Your task to perform on an android device: turn off location history Image 0: 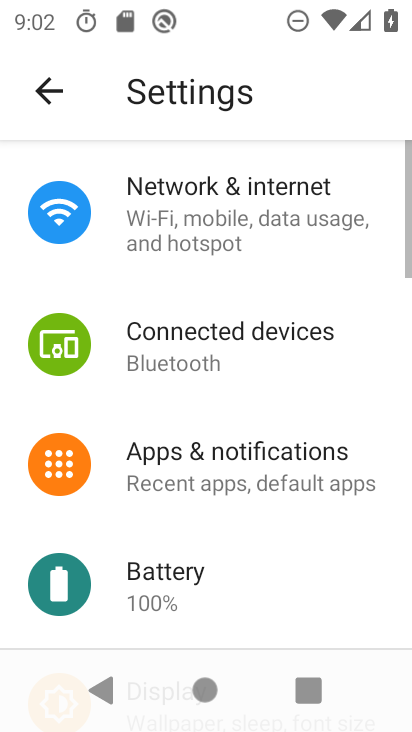
Step 0: drag from (200, 581) to (187, 194)
Your task to perform on an android device: turn off location history Image 1: 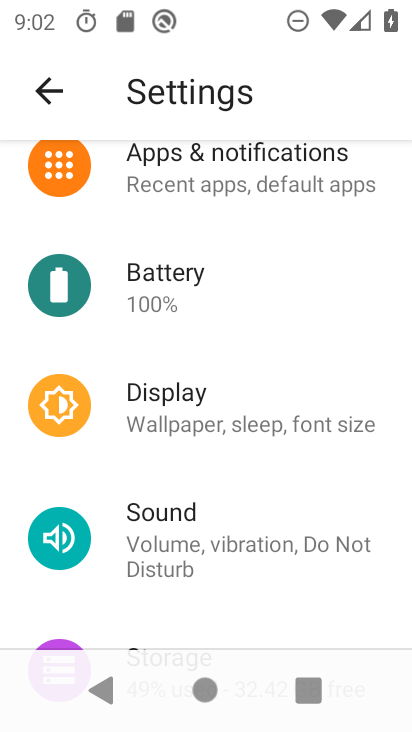
Step 1: drag from (215, 547) to (223, 228)
Your task to perform on an android device: turn off location history Image 2: 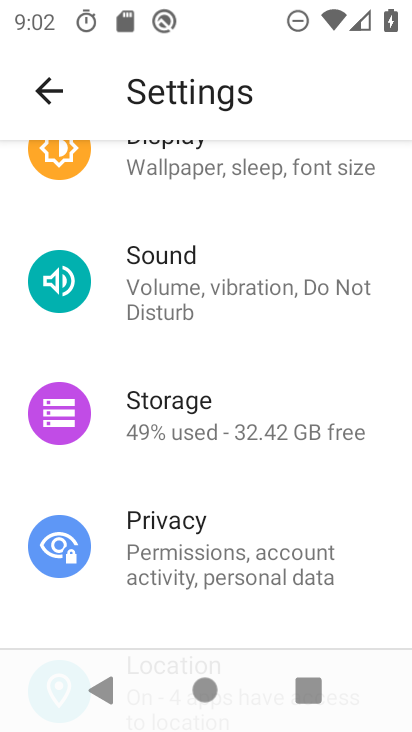
Step 2: drag from (166, 597) to (196, 270)
Your task to perform on an android device: turn off location history Image 3: 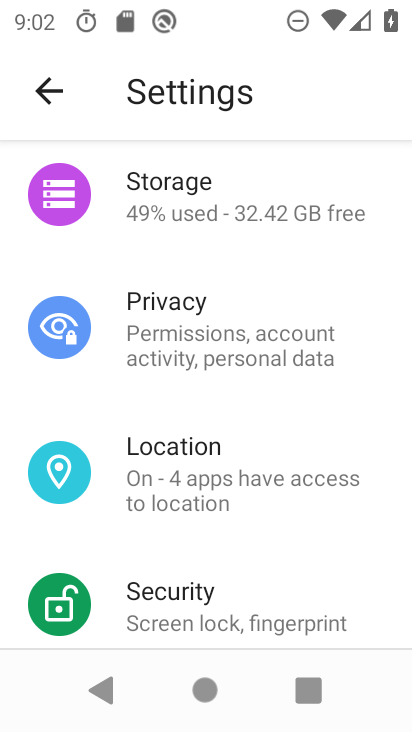
Step 3: click (158, 488)
Your task to perform on an android device: turn off location history Image 4: 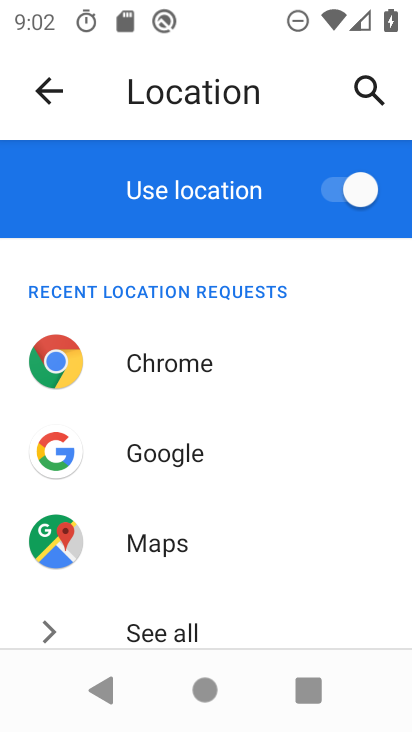
Step 4: drag from (220, 612) to (203, 235)
Your task to perform on an android device: turn off location history Image 5: 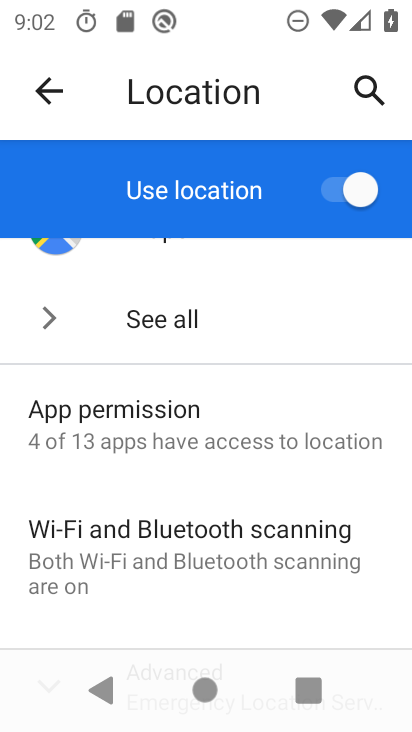
Step 5: drag from (154, 565) to (173, 392)
Your task to perform on an android device: turn off location history Image 6: 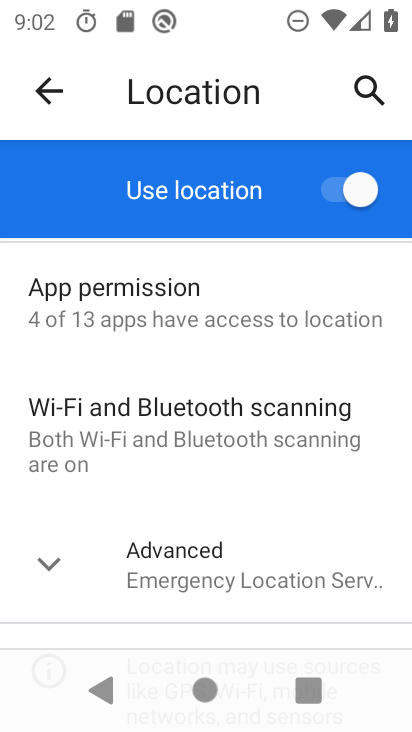
Step 6: click (217, 571)
Your task to perform on an android device: turn off location history Image 7: 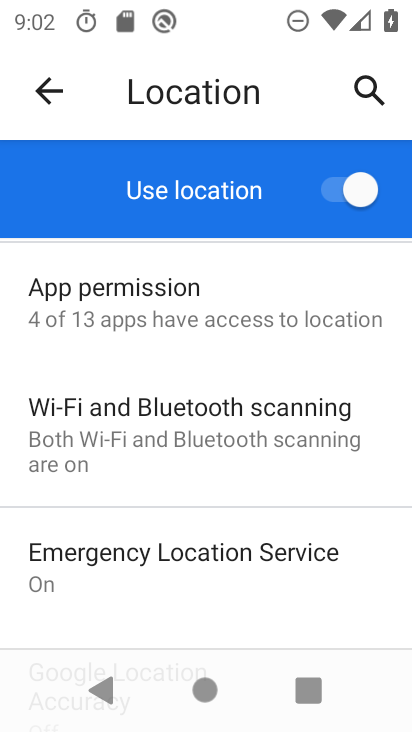
Step 7: drag from (161, 625) to (153, 255)
Your task to perform on an android device: turn off location history Image 8: 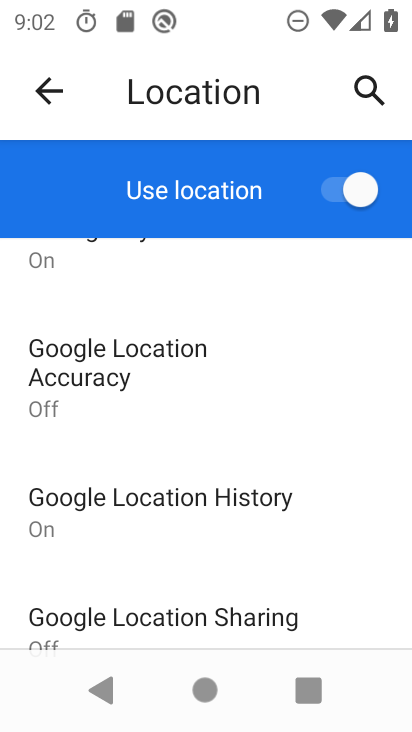
Step 8: click (127, 505)
Your task to perform on an android device: turn off location history Image 9: 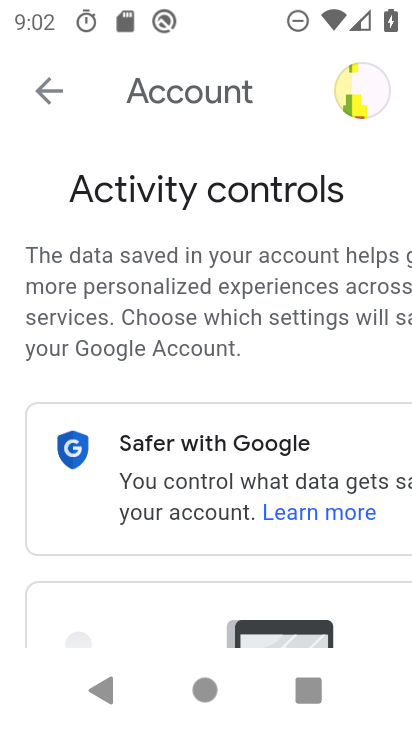
Step 9: drag from (115, 629) to (124, 267)
Your task to perform on an android device: turn off location history Image 10: 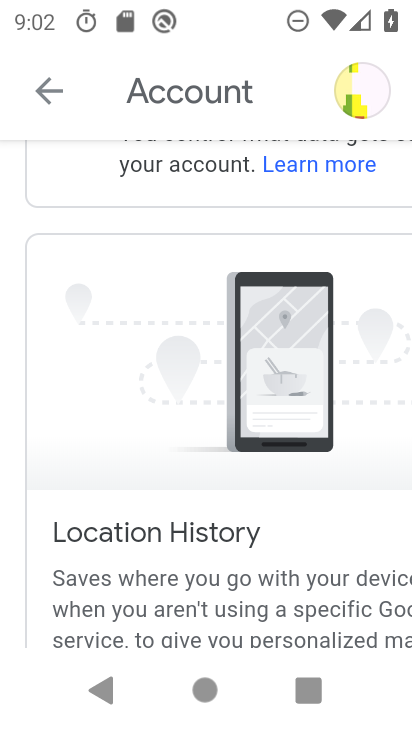
Step 10: drag from (192, 493) to (193, 177)
Your task to perform on an android device: turn off location history Image 11: 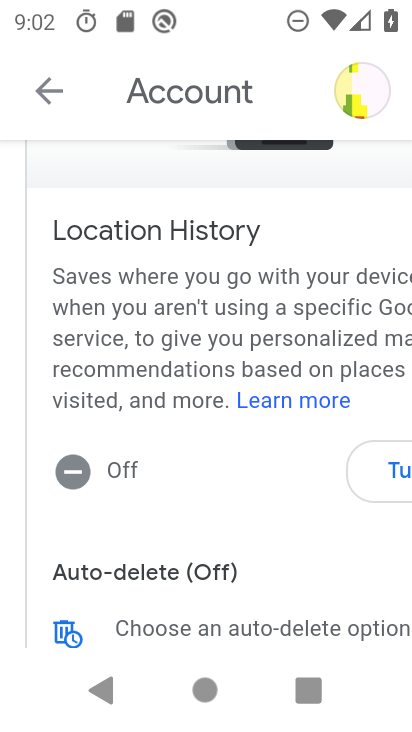
Step 11: click (76, 474)
Your task to perform on an android device: turn off location history Image 12: 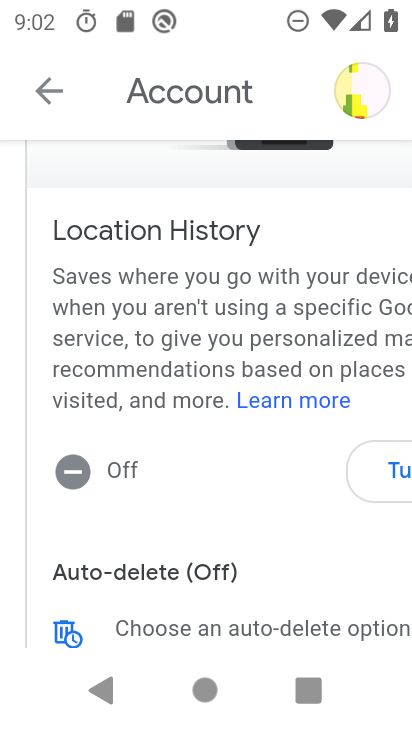
Step 12: press back button
Your task to perform on an android device: turn off location history Image 13: 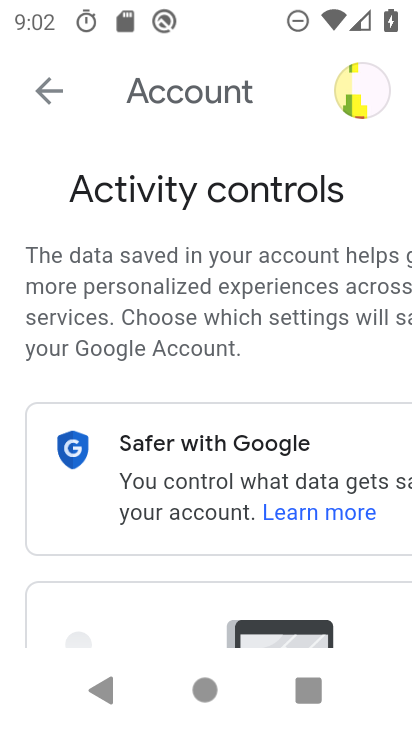
Step 13: press back button
Your task to perform on an android device: turn off location history Image 14: 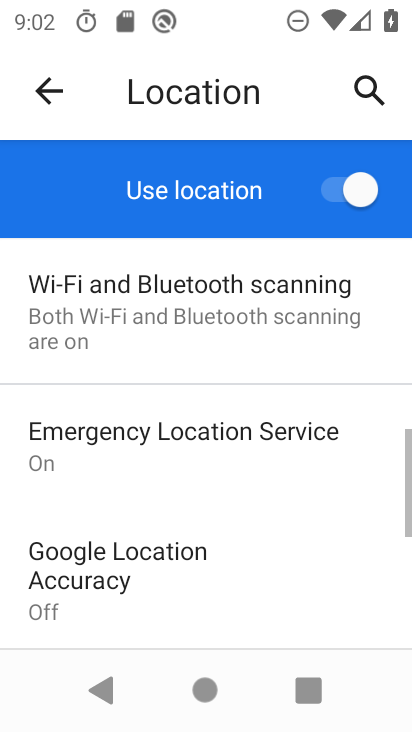
Step 14: drag from (163, 554) to (172, 256)
Your task to perform on an android device: turn off location history Image 15: 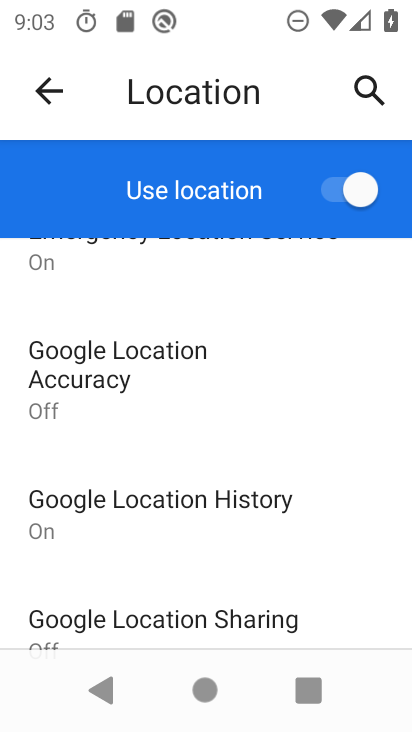
Step 15: drag from (141, 598) to (154, 482)
Your task to perform on an android device: turn off location history Image 16: 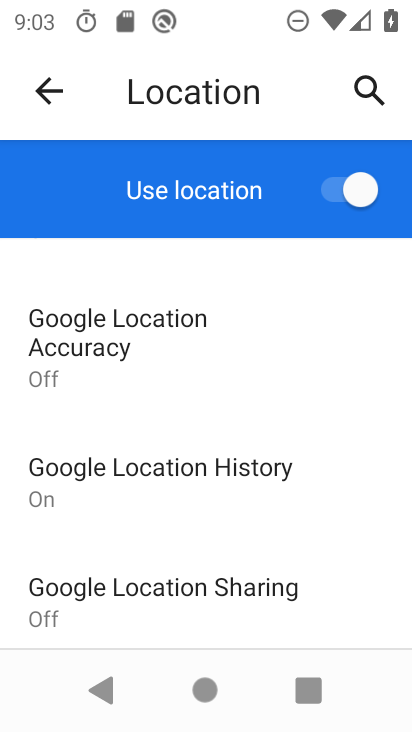
Step 16: click (144, 465)
Your task to perform on an android device: turn off location history Image 17: 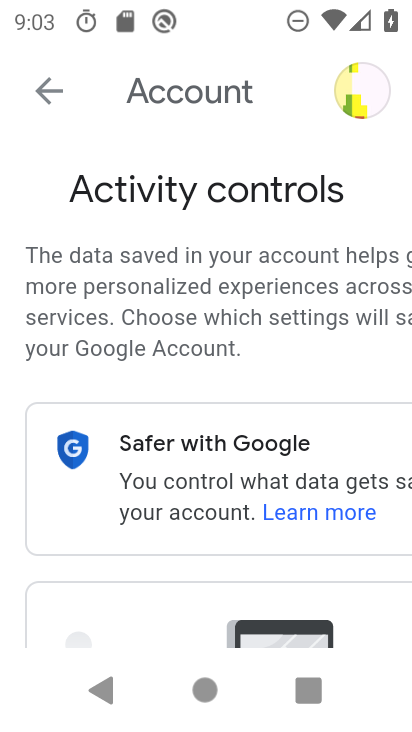
Step 17: drag from (158, 615) to (175, 148)
Your task to perform on an android device: turn off location history Image 18: 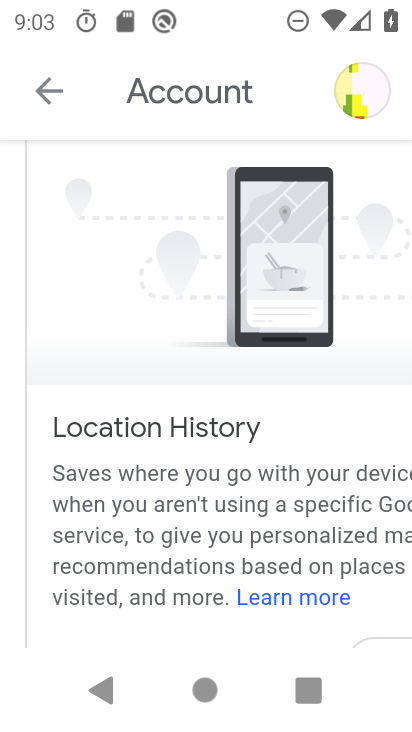
Step 18: drag from (143, 585) to (150, 304)
Your task to perform on an android device: turn off location history Image 19: 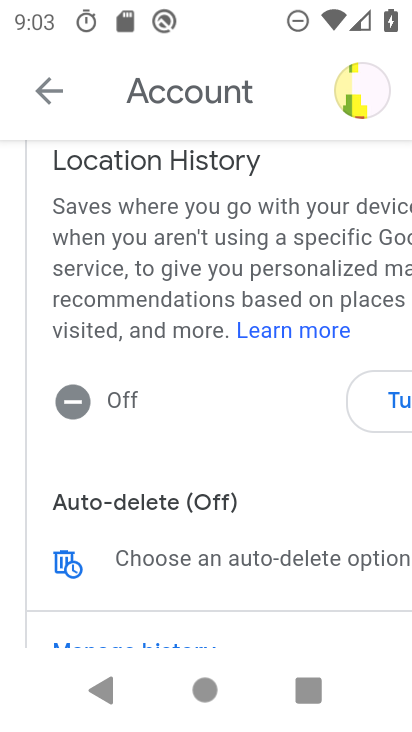
Step 19: click (93, 402)
Your task to perform on an android device: turn off location history Image 20: 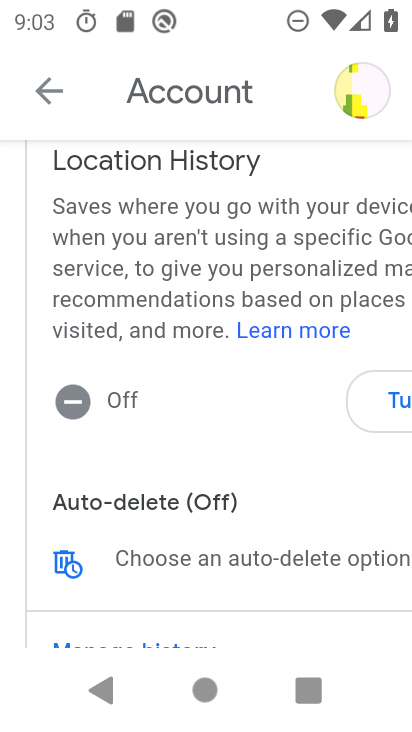
Step 20: click (74, 404)
Your task to perform on an android device: turn off location history Image 21: 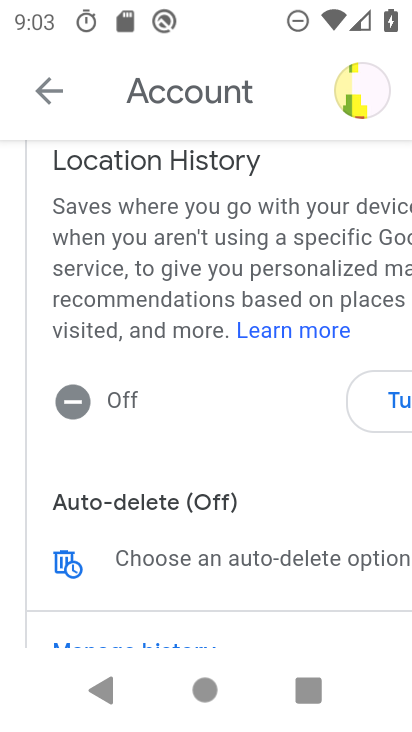
Step 21: click (74, 404)
Your task to perform on an android device: turn off location history Image 22: 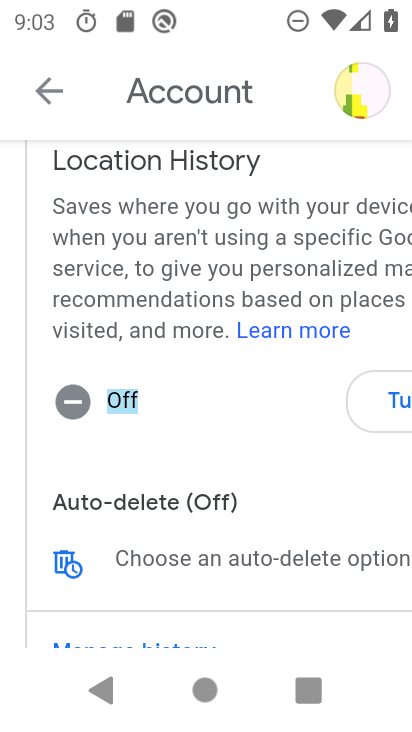
Step 22: click (74, 404)
Your task to perform on an android device: turn off location history Image 23: 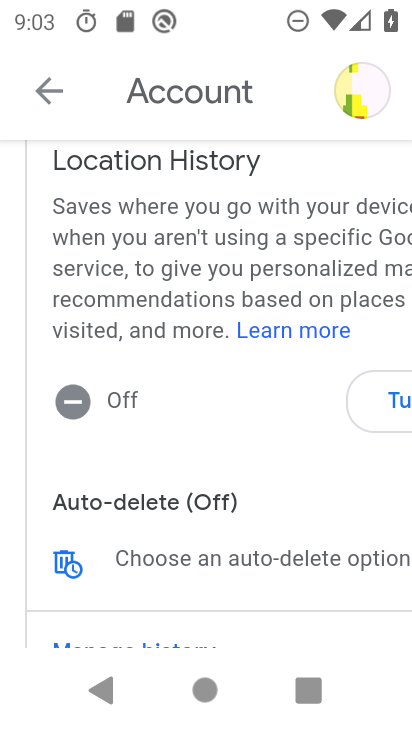
Step 23: click (128, 401)
Your task to perform on an android device: turn off location history Image 24: 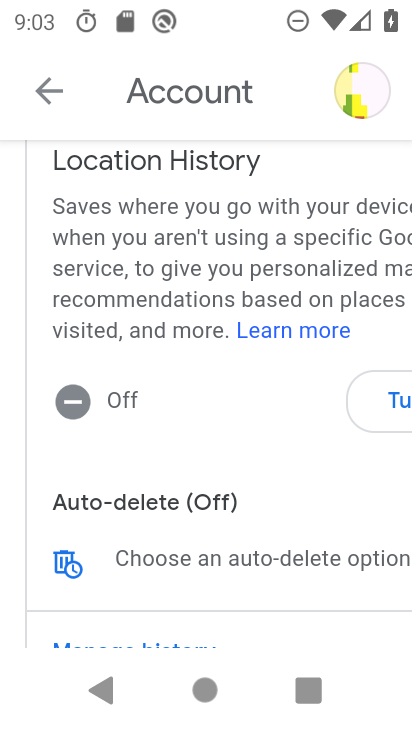
Step 24: click (390, 403)
Your task to perform on an android device: turn off location history Image 25: 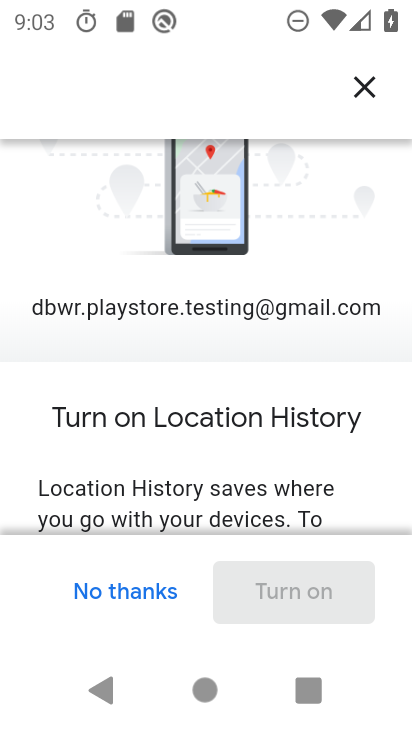
Step 25: drag from (177, 481) to (203, 110)
Your task to perform on an android device: turn off location history Image 26: 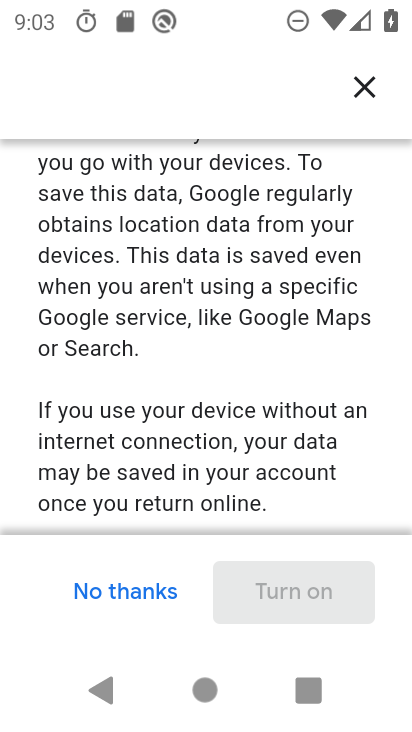
Step 26: drag from (201, 470) to (213, 185)
Your task to perform on an android device: turn off location history Image 27: 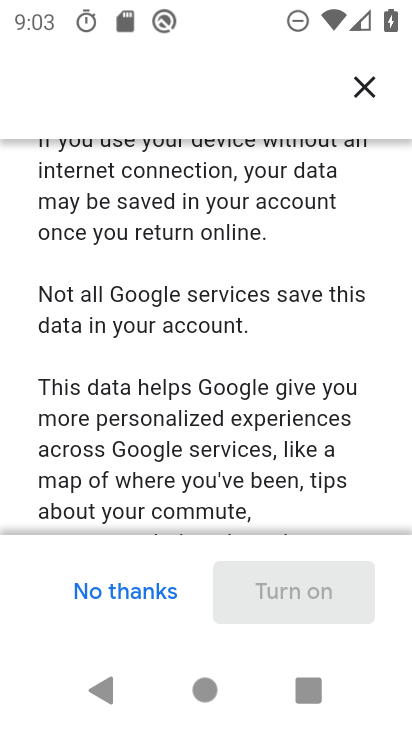
Step 27: drag from (188, 501) to (197, 207)
Your task to perform on an android device: turn off location history Image 28: 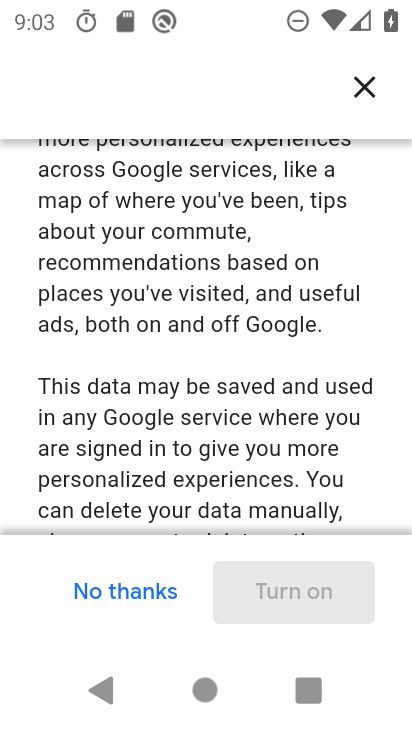
Step 28: drag from (219, 503) to (223, 261)
Your task to perform on an android device: turn off location history Image 29: 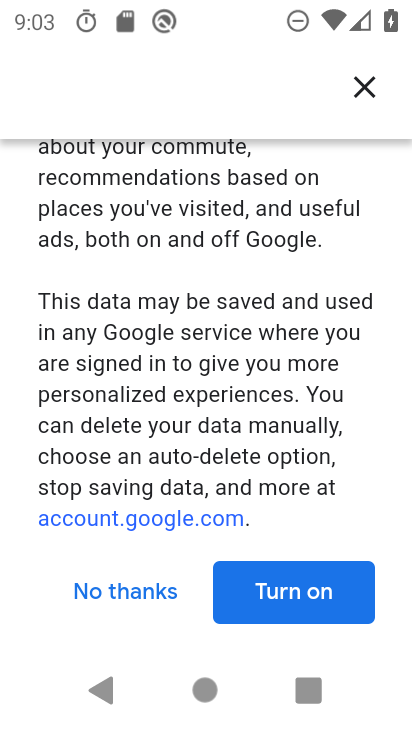
Step 29: click (292, 606)
Your task to perform on an android device: turn off location history Image 30: 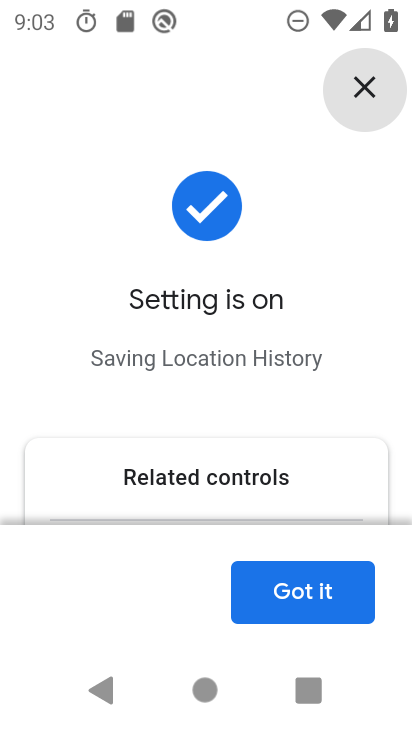
Step 30: click (293, 594)
Your task to perform on an android device: turn off location history Image 31: 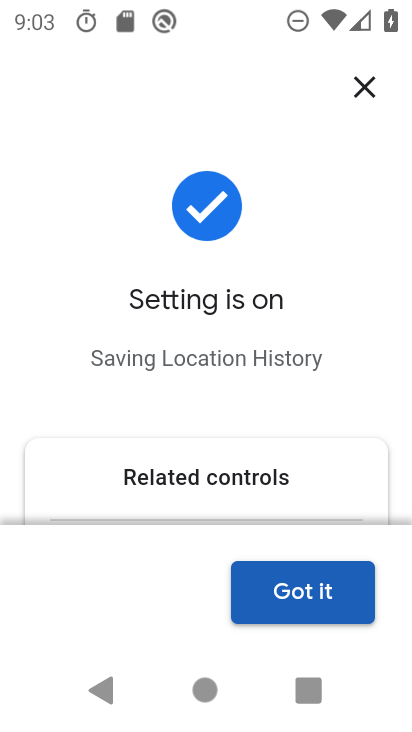
Step 31: drag from (326, 494) to (305, 196)
Your task to perform on an android device: turn off location history Image 32: 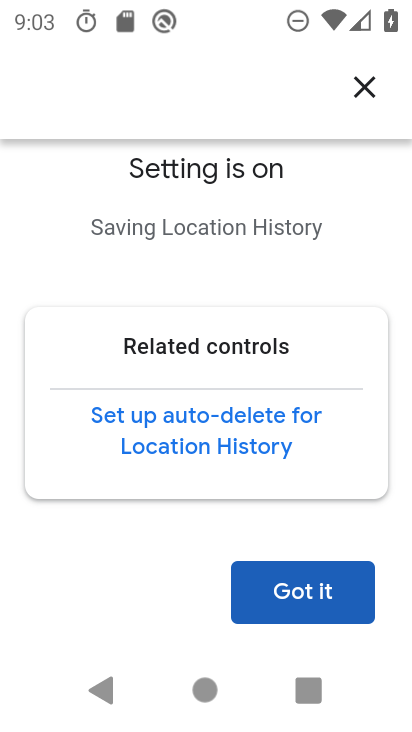
Step 32: click (285, 604)
Your task to perform on an android device: turn off location history Image 33: 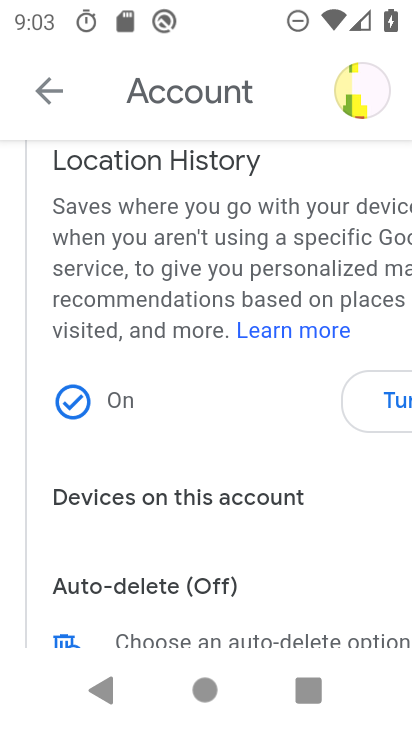
Step 33: click (390, 400)
Your task to perform on an android device: turn off location history Image 34: 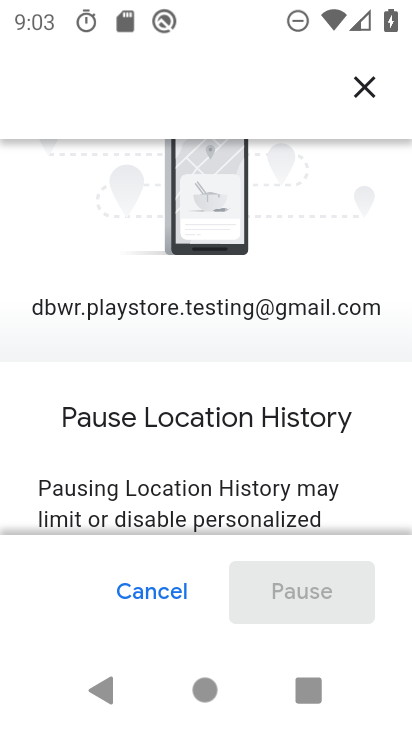
Step 34: drag from (317, 471) to (271, 202)
Your task to perform on an android device: turn off location history Image 35: 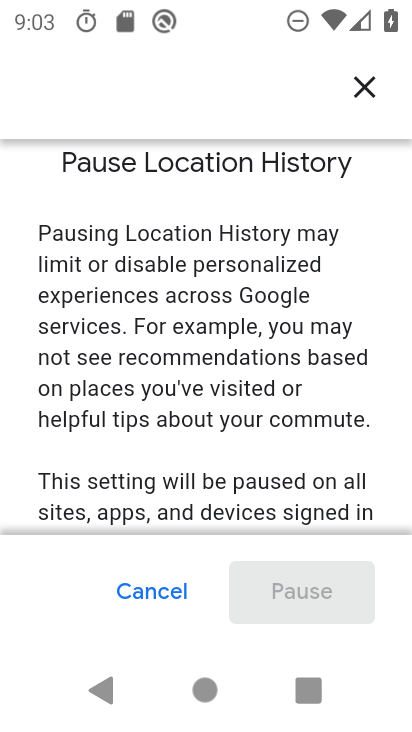
Step 35: drag from (237, 512) to (219, 251)
Your task to perform on an android device: turn off location history Image 36: 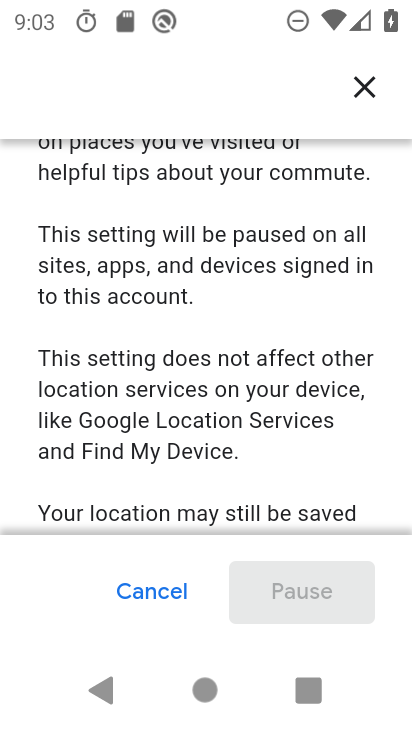
Step 36: drag from (250, 501) to (234, 256)
Your task to perform on an android device: turn off location history Image 37: 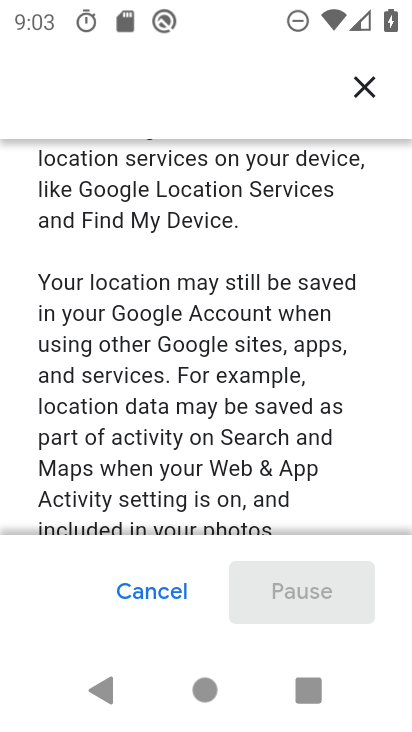
Step 37: drag from (191, 546) to (180, 251)
Your task to perform on an android device: turn off location history Image 38: 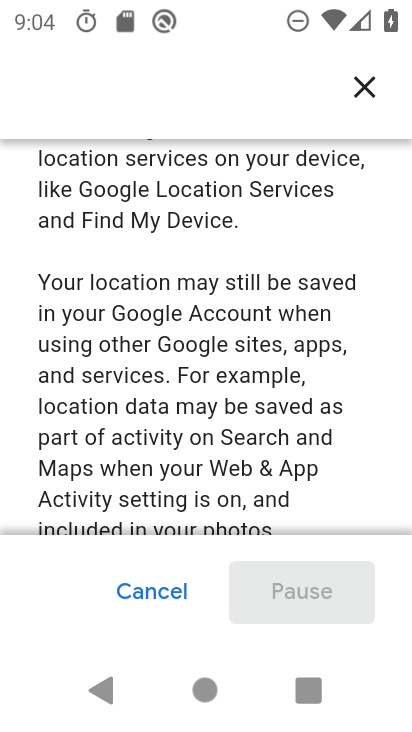
Step 38: drag from (238, 413) to (251, 181)
Your task to perform on an android device: turn off location history Image 39: 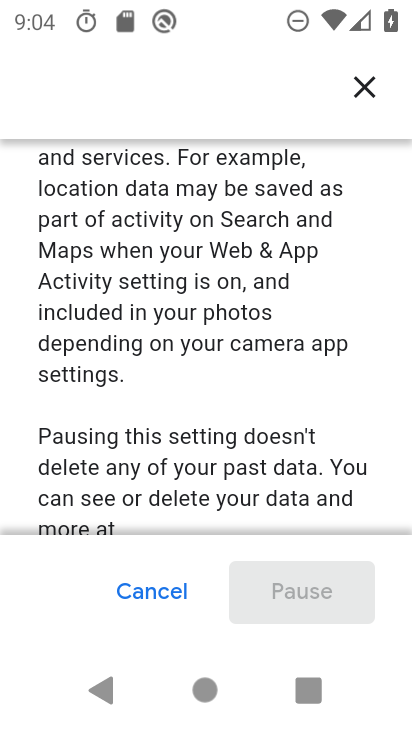
Step 39: drag from (231, 425) to (230, 228)
Your task to perform on an android device: turn off location history Image 40: 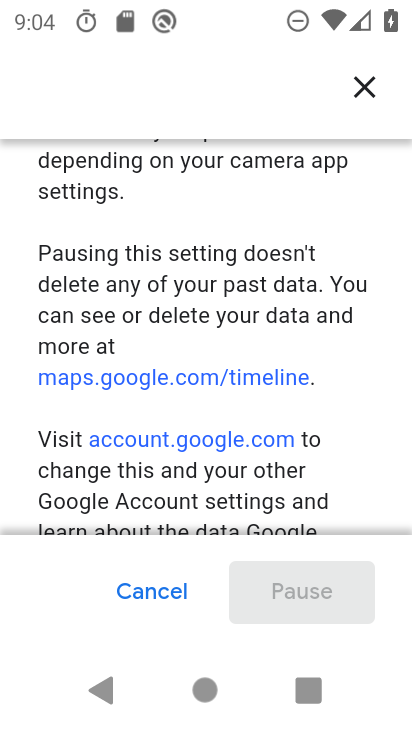
Step 40: drag from (271, 506) to (279, 221)
Your task to perform on an android device: turn off location history Image 41: 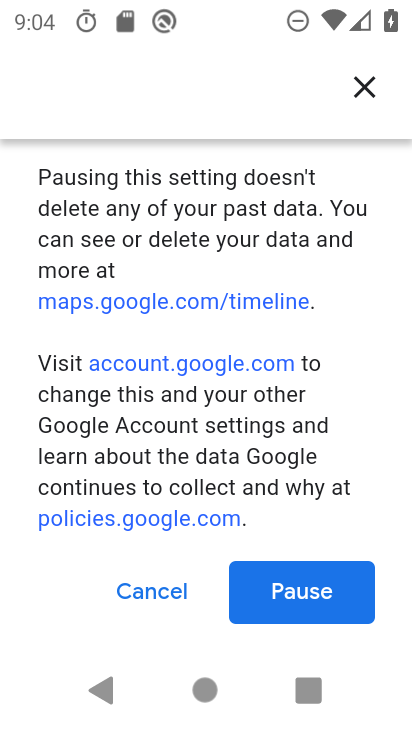
Step 41: click (269, 608)
Your task to perform on an android device: turn off location history Image 42: 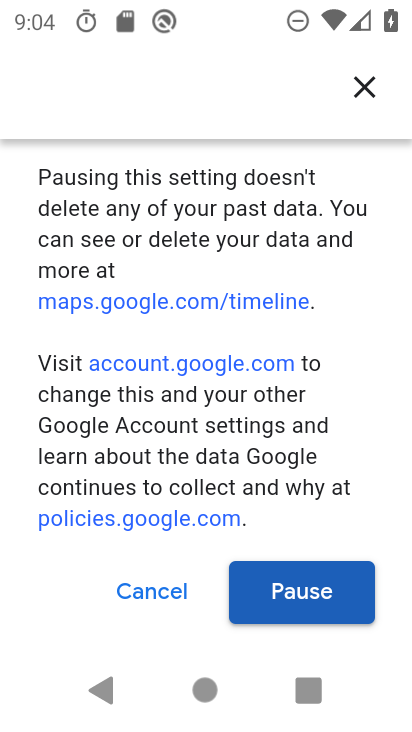
Step 42: click (294, 596)
Your task to perform on an android device: turn off location history Image 43: 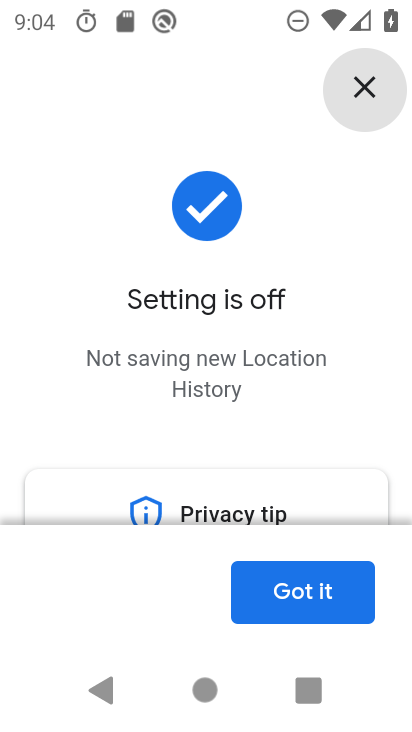
Step 43: task complete